Your task to perform on an android device: Show me popular videos on Youtube Image 0: 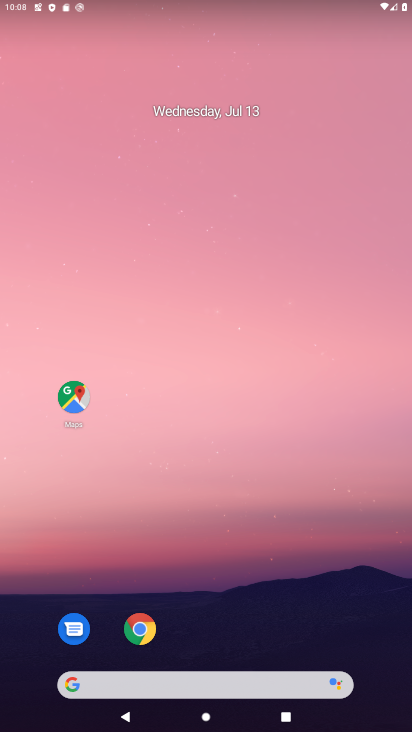
Step 0: drag from (214, 654) to (236, 80)
Your task to perform on an android device: Show me popular videos on Youtube Image 1: 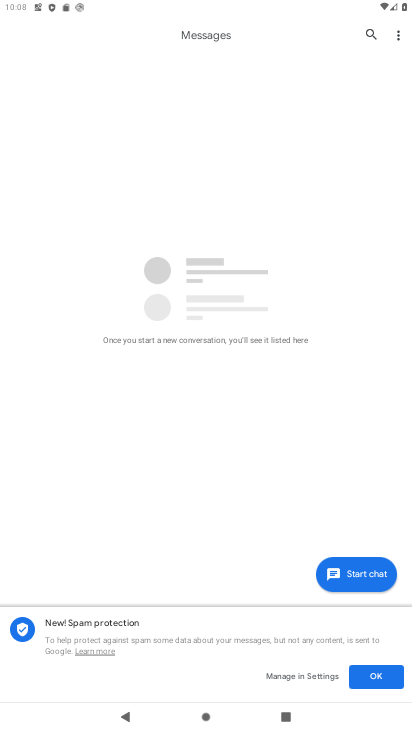
Step 1: press home button
Your task to perform on an android device: Show me popular videos on Youtube Image 2: 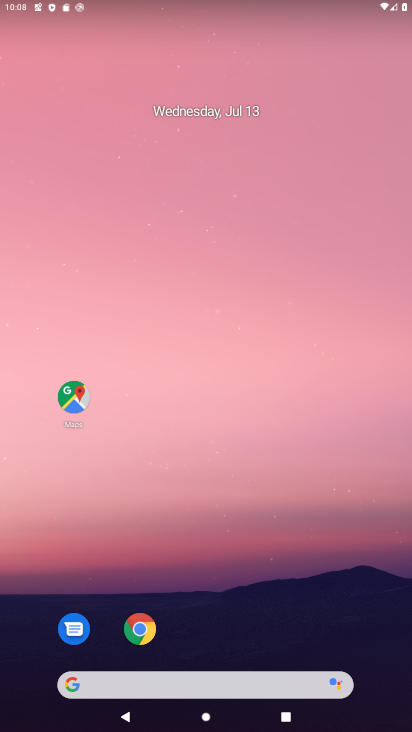
Step 2: drag from (208, 644) to (214, 6)
Your task to perform on an android device: Show me popular videos on Youtube Image 3: 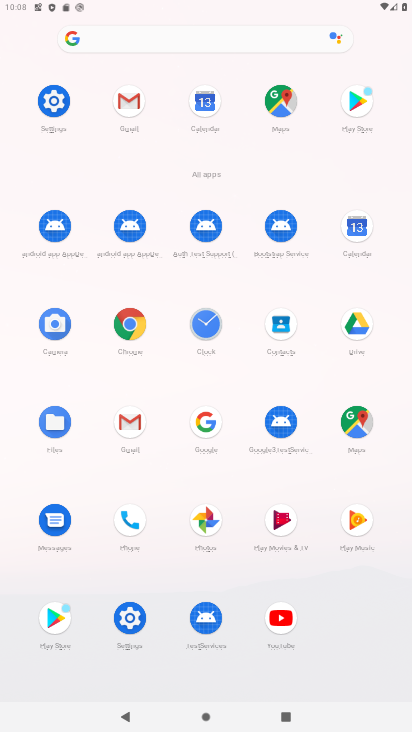
Step 3: click (279, 611)
Your task to perform on an android device: Show me popular videos on Youtube Image 4: 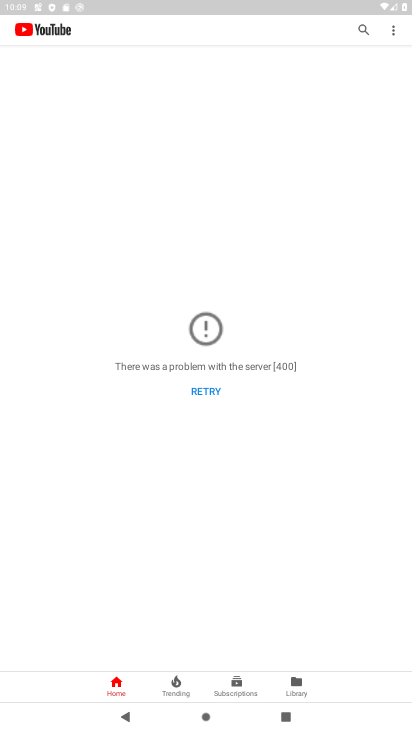
Step 4: click (304, 680)
Your task to perform on an android device: Show me popular videos on Youtube Image 5: 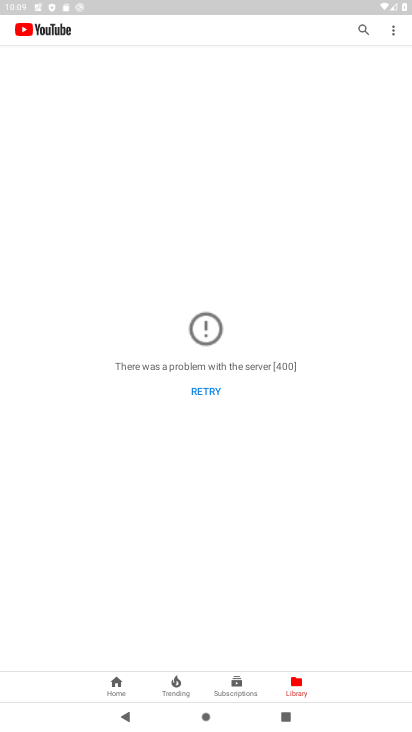
Step 5: task complete